Your task to perform on an android device: manage bookmarks in the chrome app Image 0: 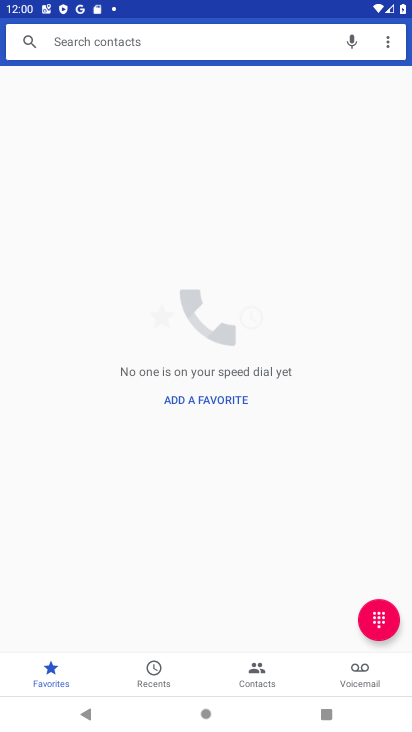
Step 0: press home button
Your task to perform on an android device: manage bookmarks in the chrome app Image 1: 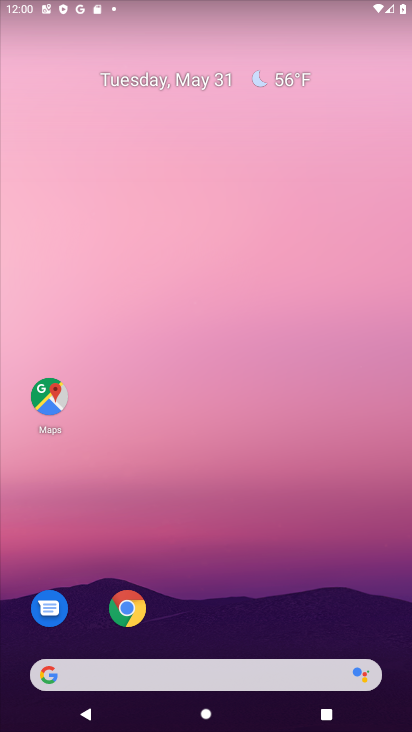
Step 1: click (132, 607)
Your task to perform on an android device: manage bookmarks in the chrome app Image 2: 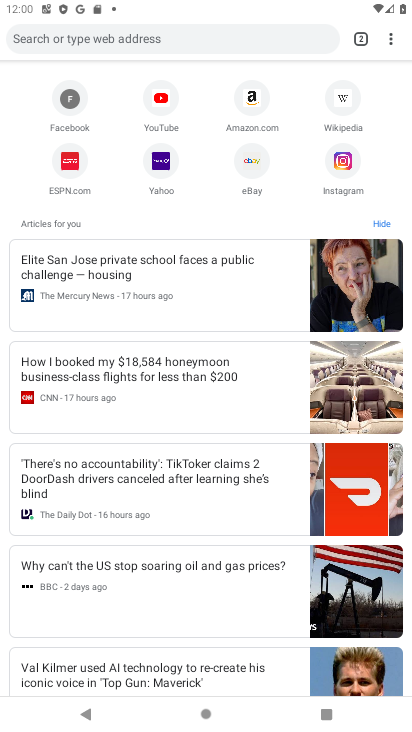
Step 2: click (388, 38)
Your task to perform on an android device: manage bookmarks in the chrome app Image 3: 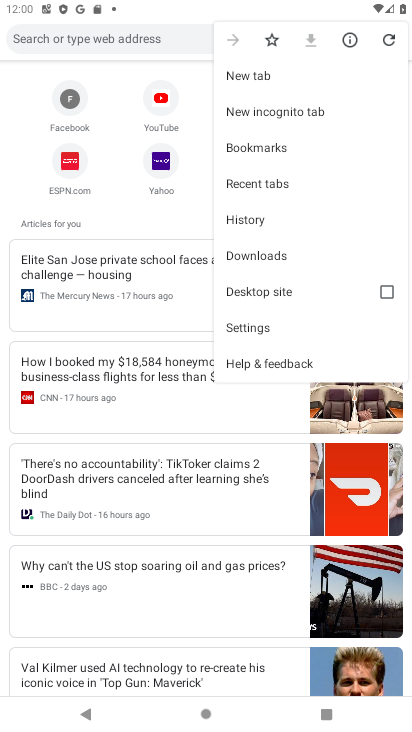
Step 3: click (279, 145)
Your task to perform on an android device: manage bookmarks in the chrome app Image 4: 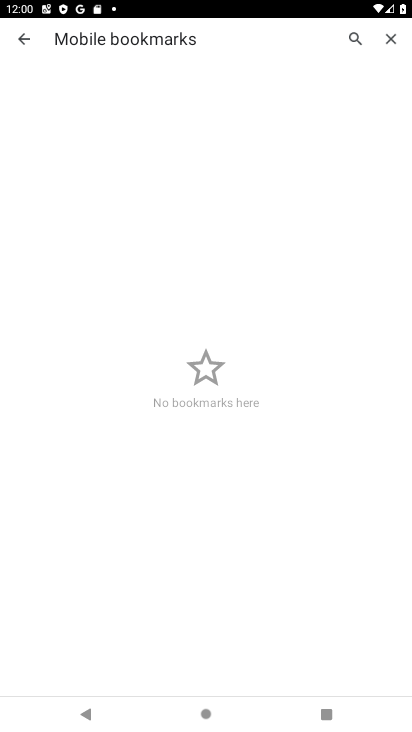
Step 4: task complete